Your task to perform on an android device: check android version Image 0: 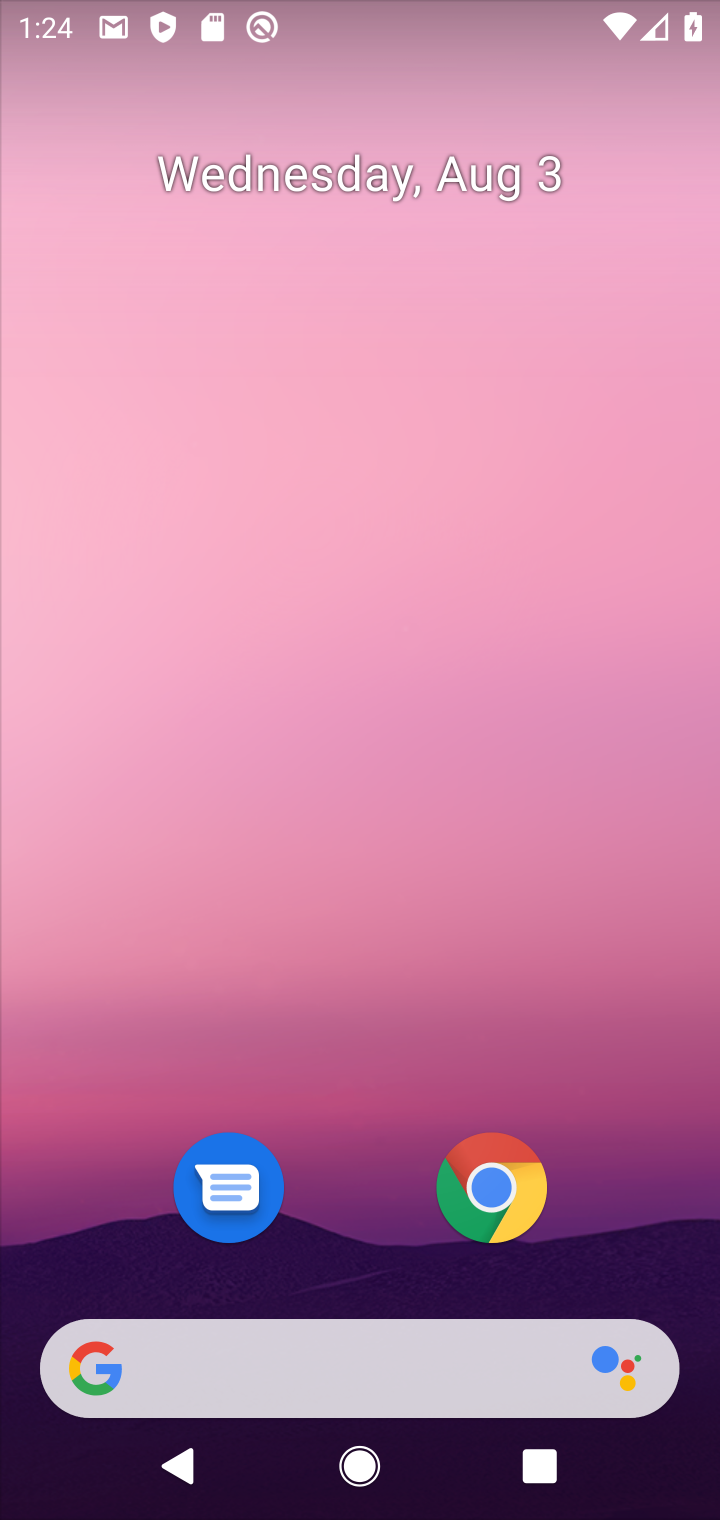
Step 0: drag from (326, 991) to (320, 72)
Your task to perform on an android device: check android version Image 1: 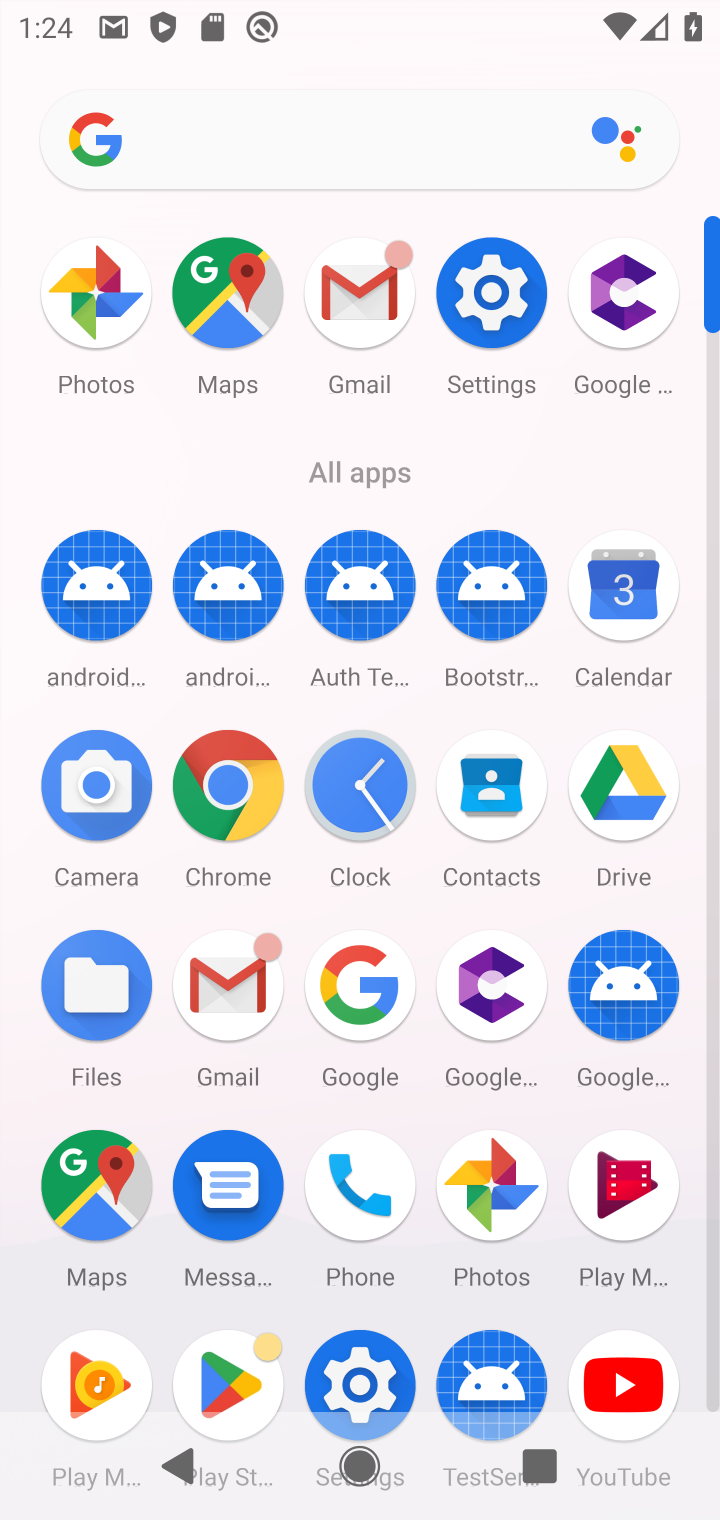
Step 1: click (373, 1346)
Your task to perform on an android device: check android version Image 2: 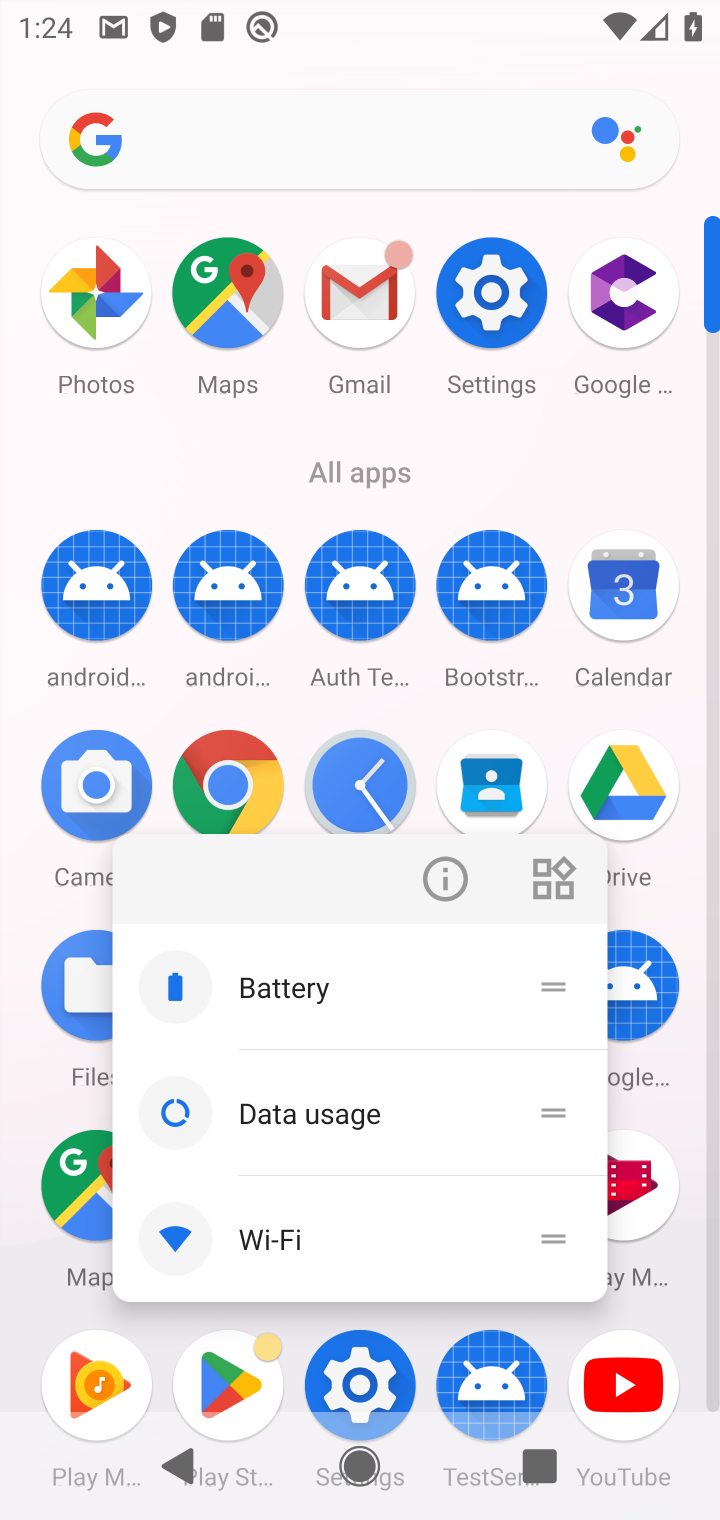
Step 2: click (373, 1346)
Your task to perform on an android device: check android version Image 3: 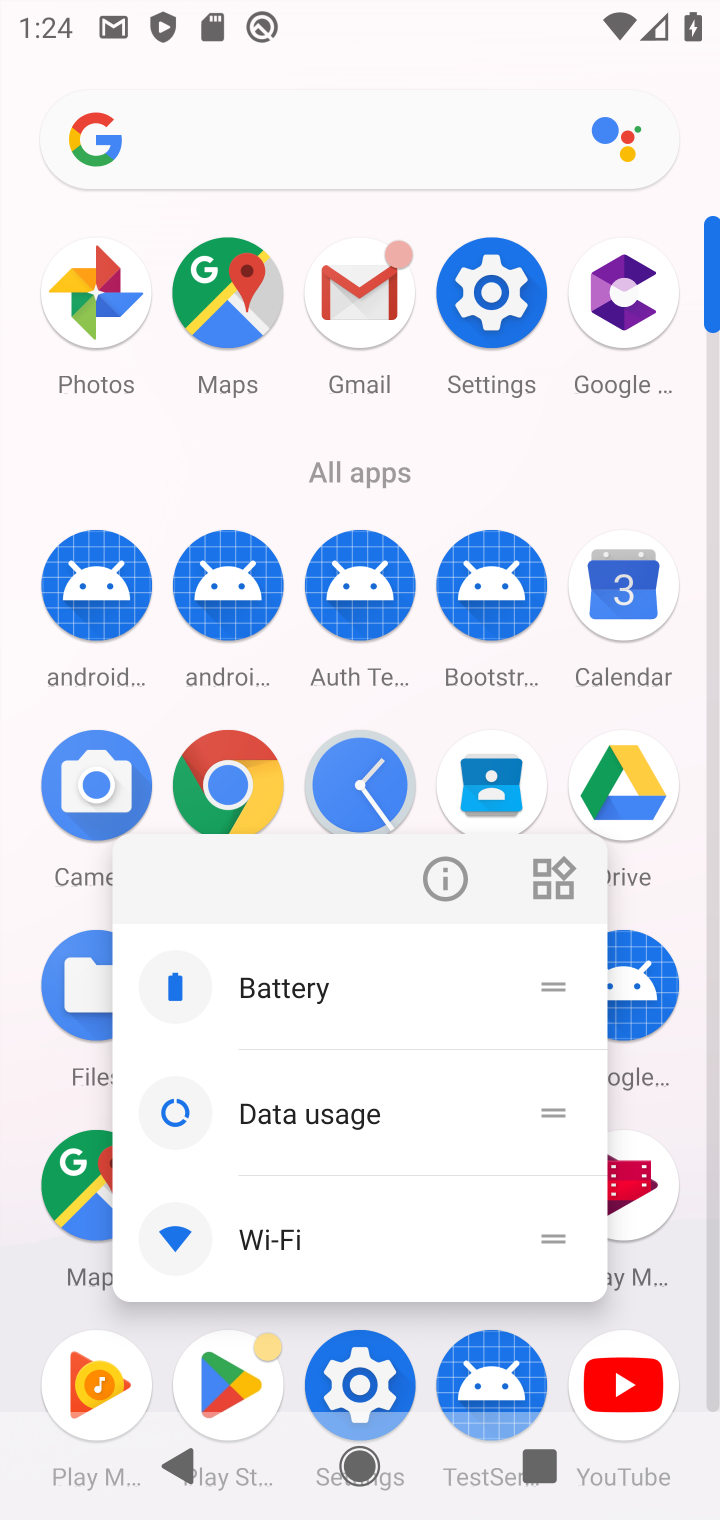
Step 3: click (373, 1346)
Your task to perform on an android device: check android version Image 4: 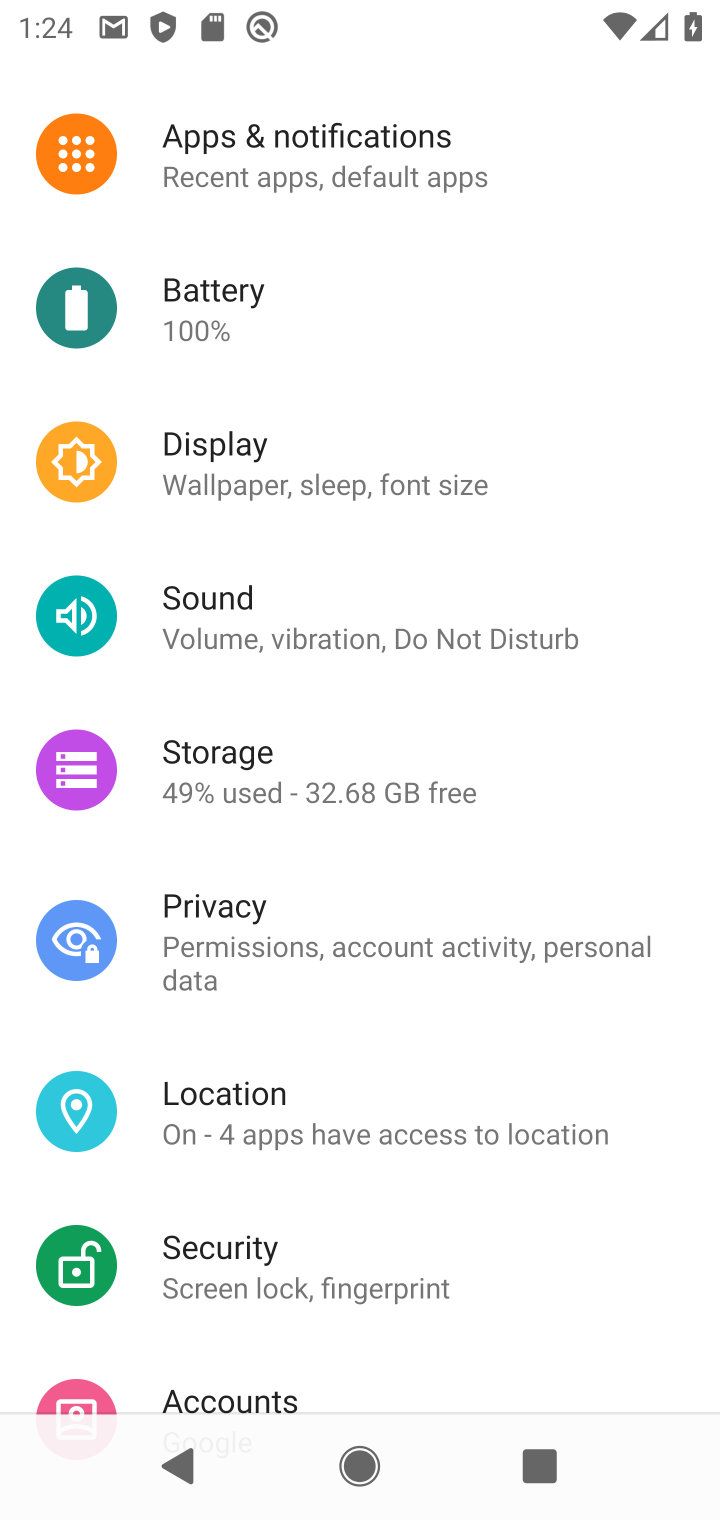
Step 4: drag from (444, 990) to (443, 339)
Your task to perform on an android device: check android version Image 5: 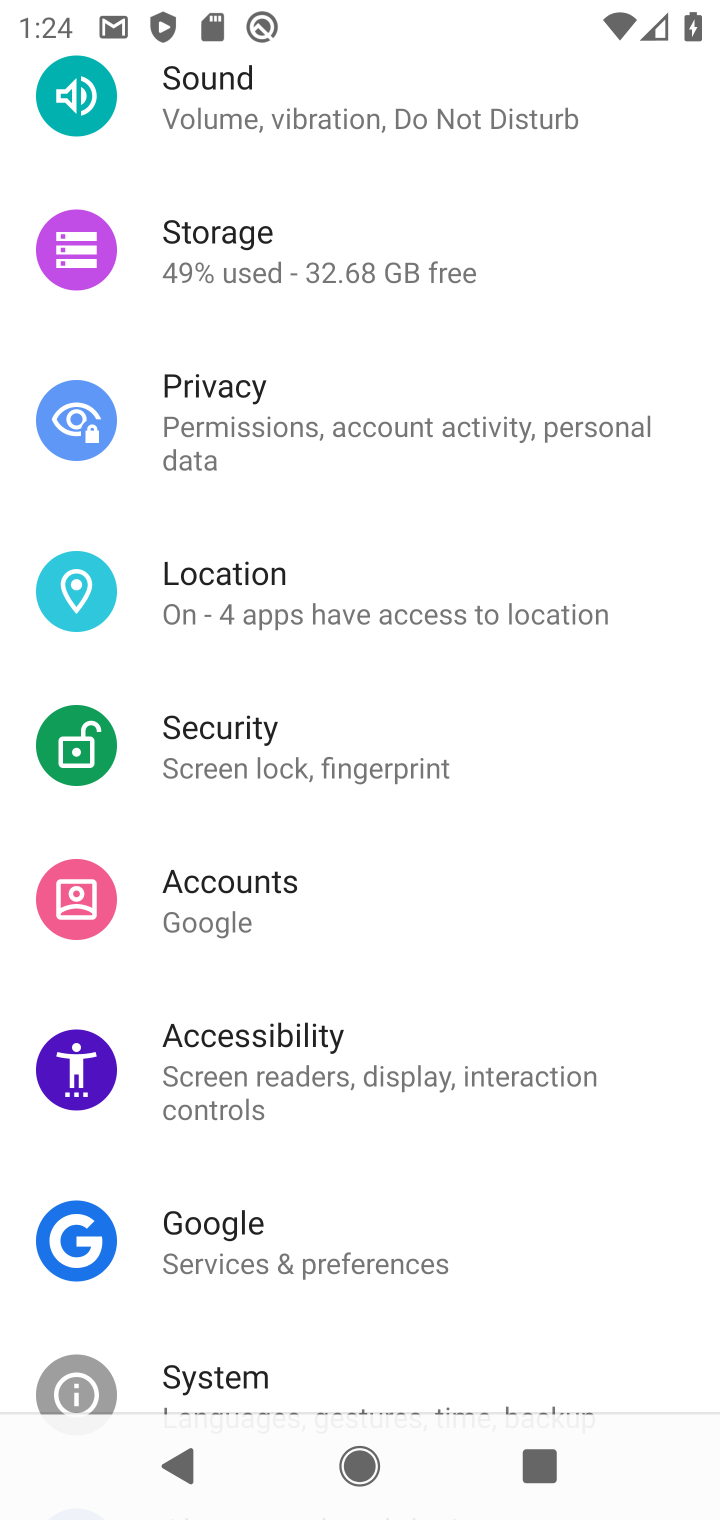
Step 5: drag from (381, 943) to (402, 492)
Your task to perform on an android device: check android version Image 6: 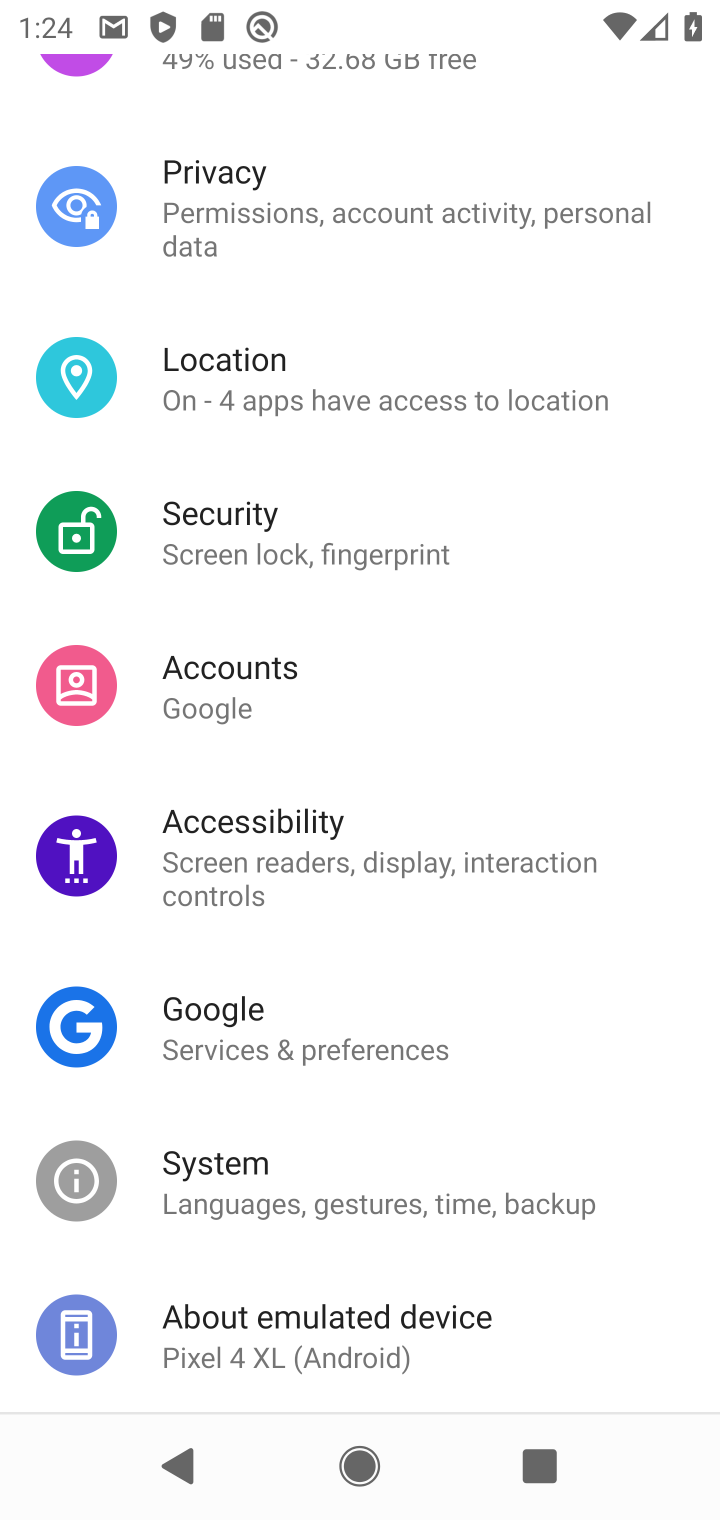
Step 6: click (375, 1331)
Your task to perform on an android device: check android version Image 7: 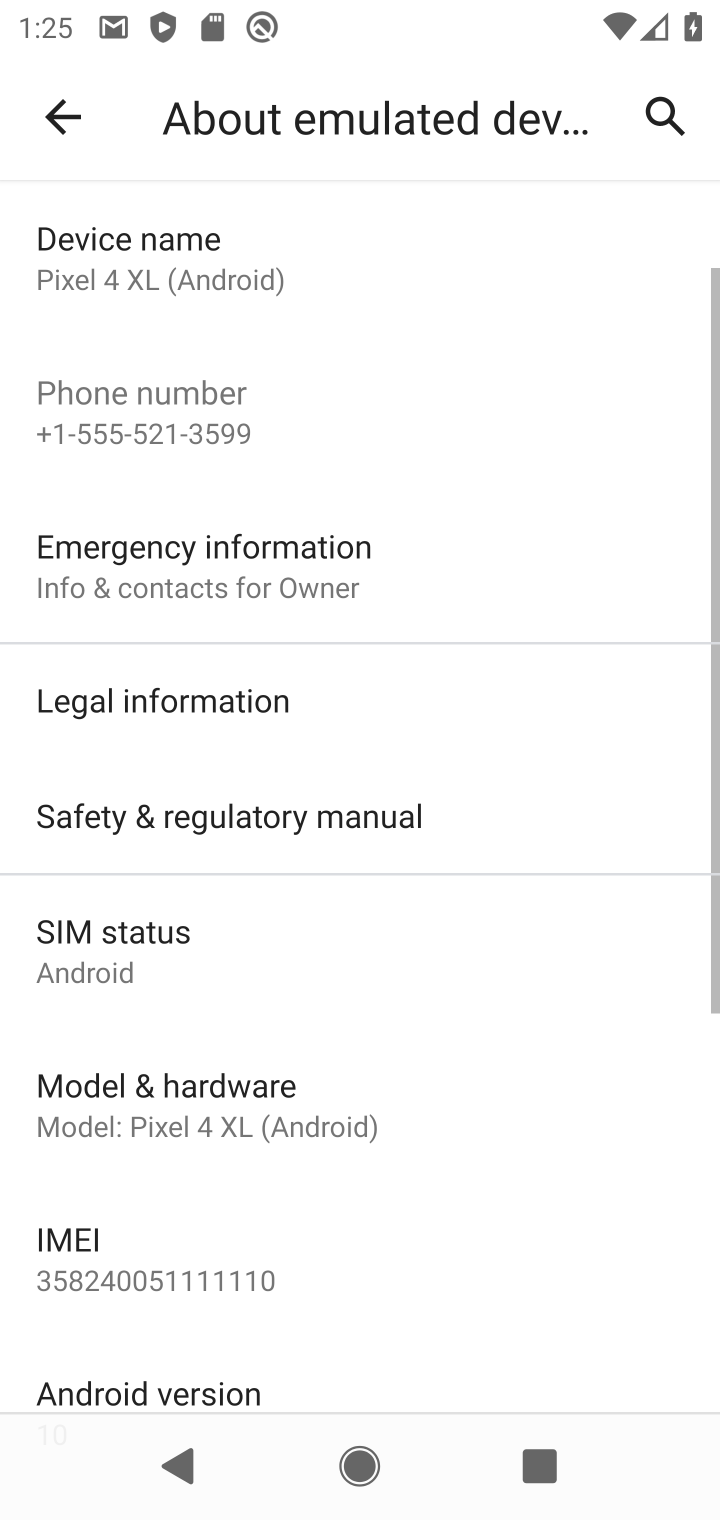
Step 7: drag from (467, 1048) to (467, 485)
Your task to perform on an android device: check android version Image 8: 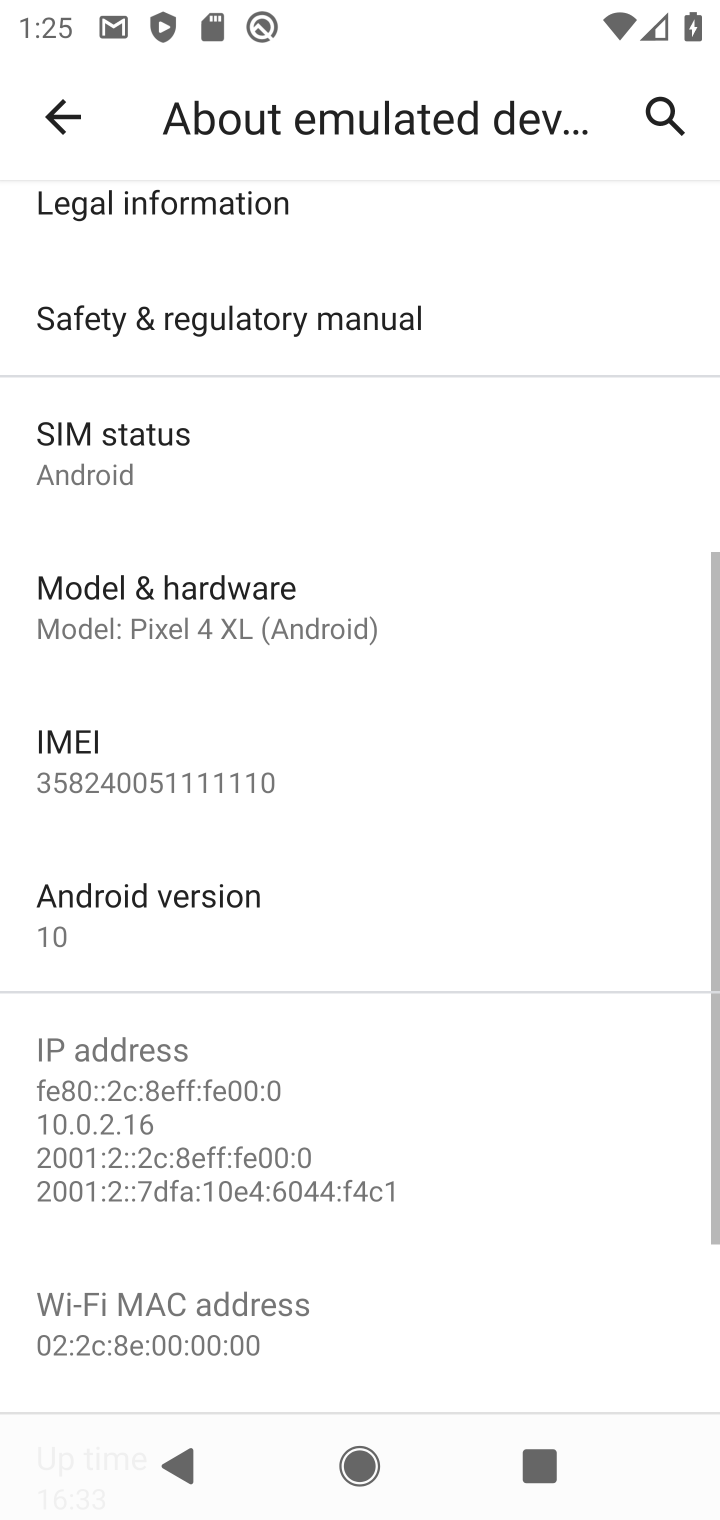
Step 8: click (284, 919)
Your task to perform on an android device: check android version Image 9: 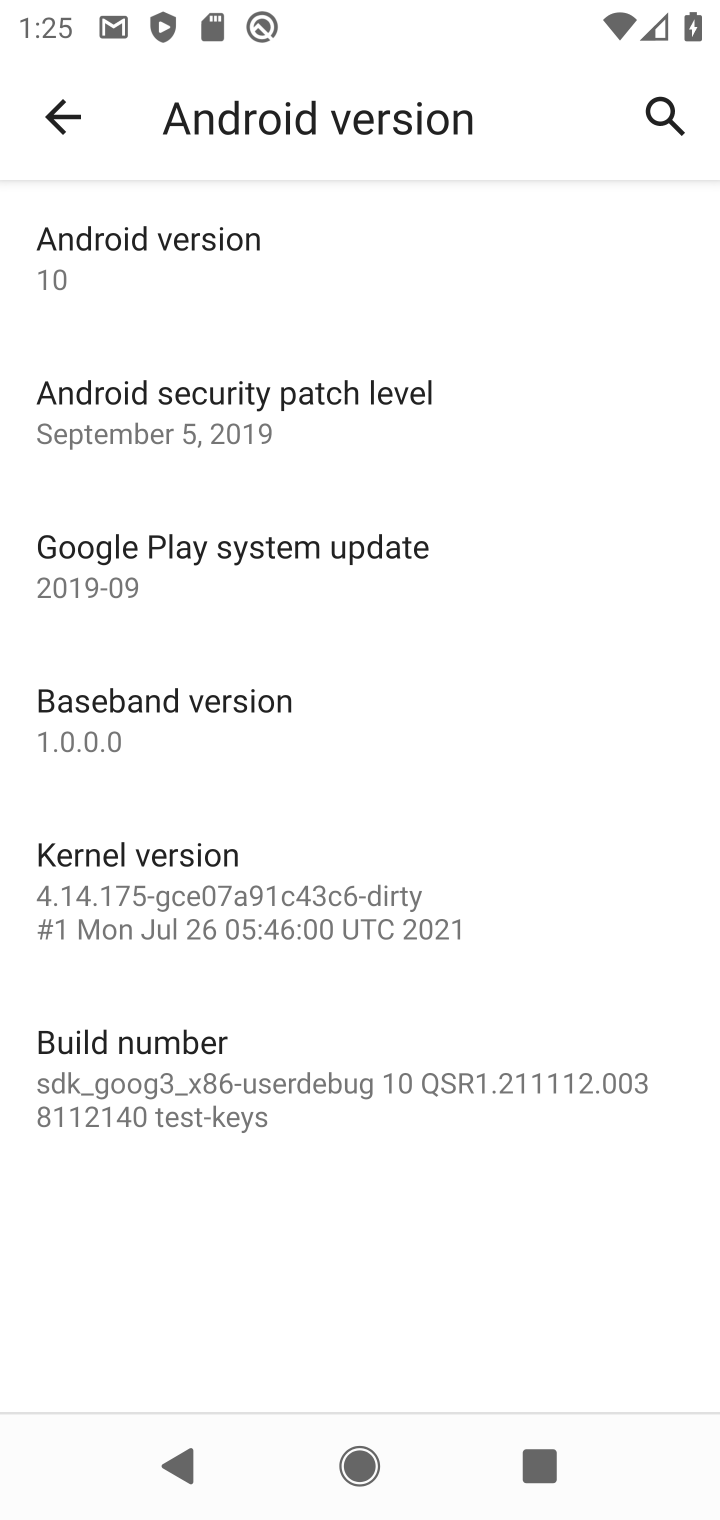
Step 9: task complete